Your task to perform on an android device: turn off javascript in the chrome app Image 0: 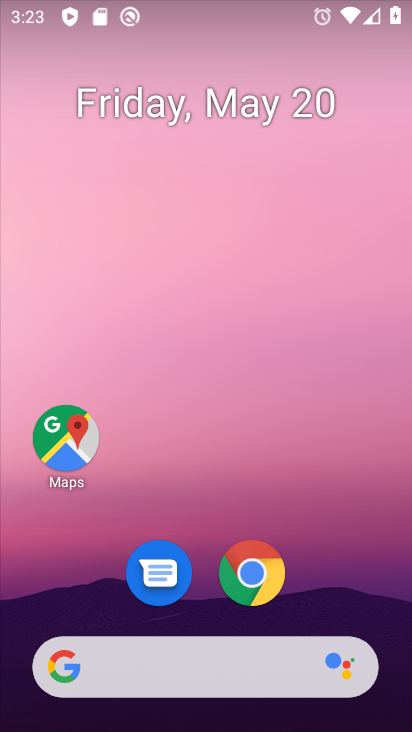
Step 0: click (232, 559)
Your task to perform on an android device: turn off javascript in the chrome app Image 1: 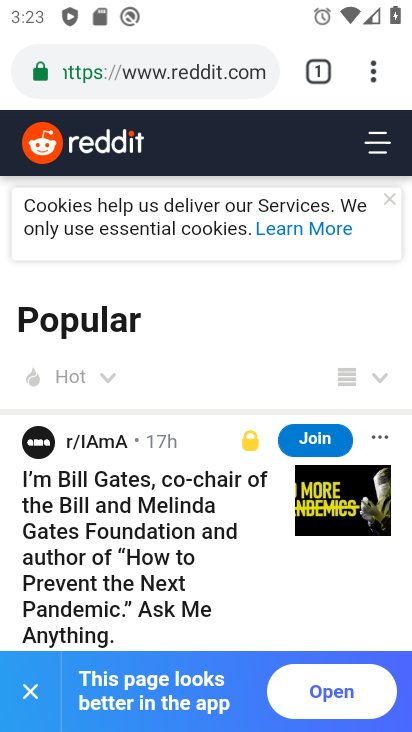
Step 1: drag from (366, 68) to (131, 555)
Your task to perform on an android device: turn off javascript in the chrome app Image 2: 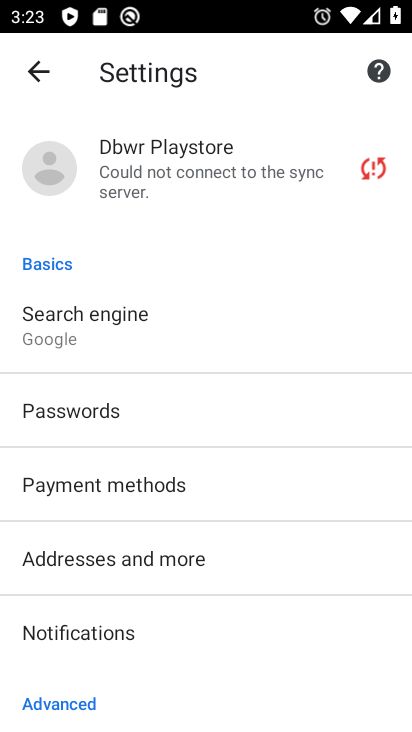
Step 2: drag from (177, 598) to (143, 193)
Your task to perform on an android device: turn off javascript in the chrome app Image 3: 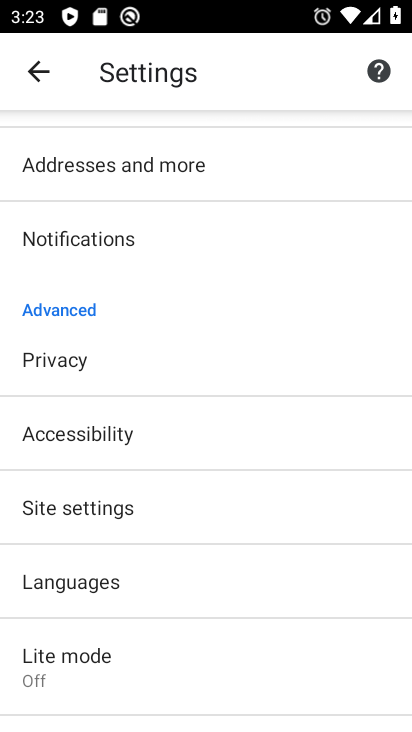
Step 3: click (116, 519)
Your task to perform on an android device: turn off javascript in the chrome app Image 4: 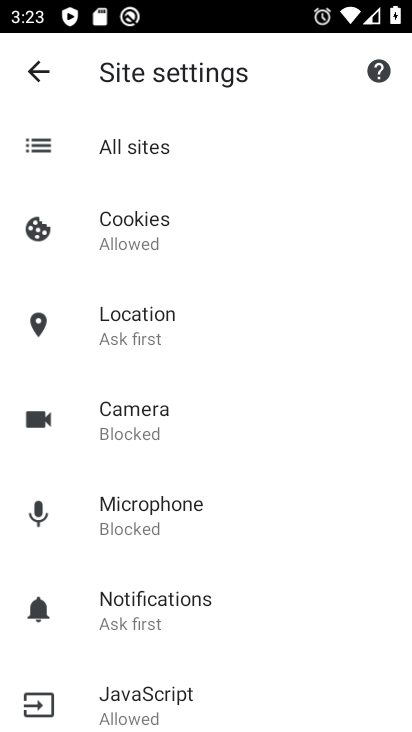
Step 4: click (161, 704)
Your task to perform on an android device: turn off javascript in the chrome app Image 5: 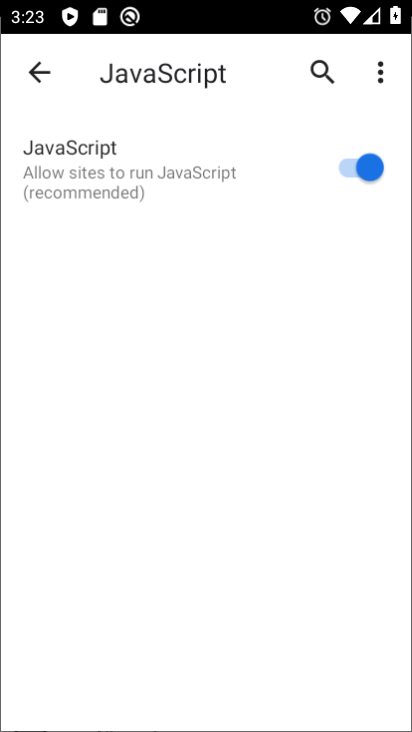
Step 5: drag from (161, 703) to (234, 264)
Your task to perform on an android device: turn off javascript in the chrome app Image 6: 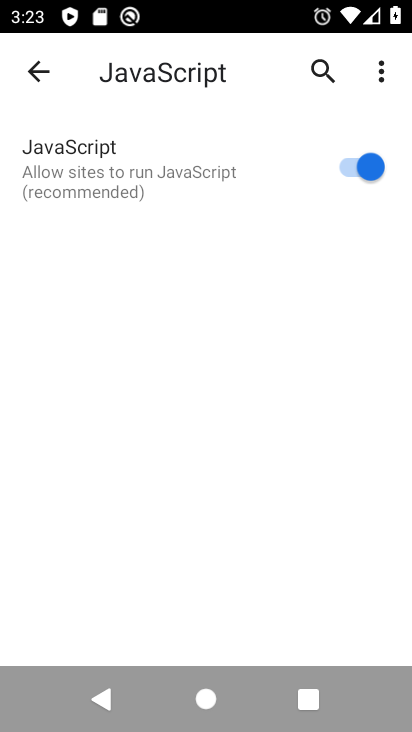
Step 6: click (351, 165)
Your task to perform on an android device: turn off javascript in the chrome app Image 7: 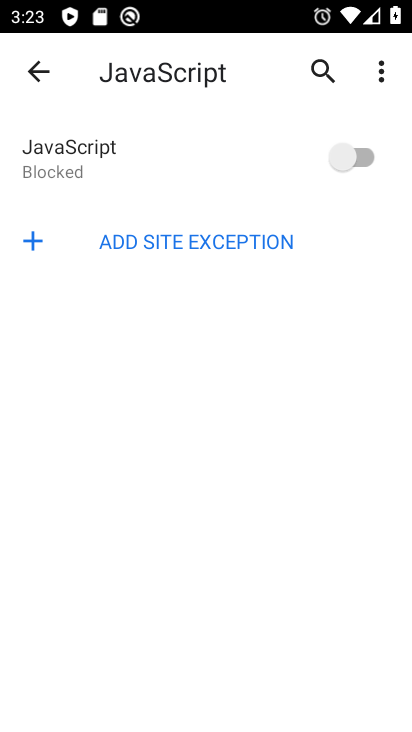
Step 7: task complete